Your task to perform on an android device: check data usage Image 0: 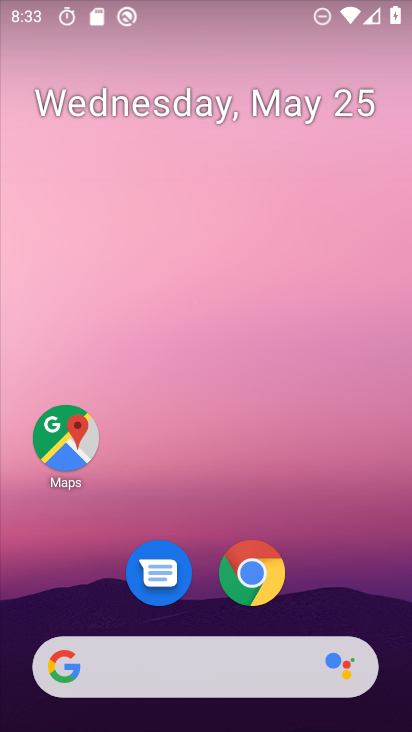
Step 0: drag from (391, 662) to (379, 187)
Your task to perform on an android device: check data usage Image 1: 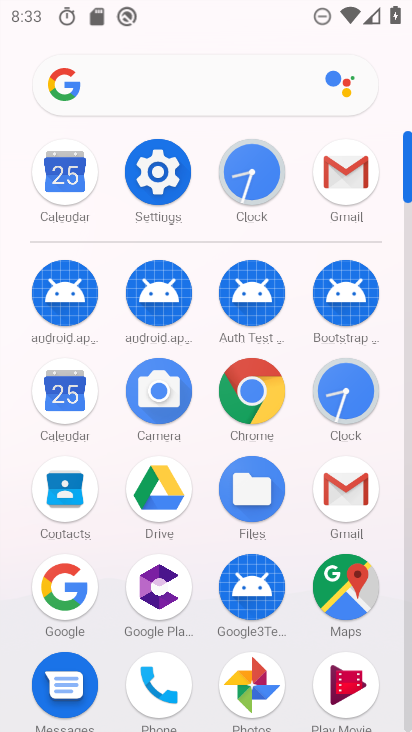
Step 1: click (139, 187)
Your task to perform on an android device: check data usage Image 2: 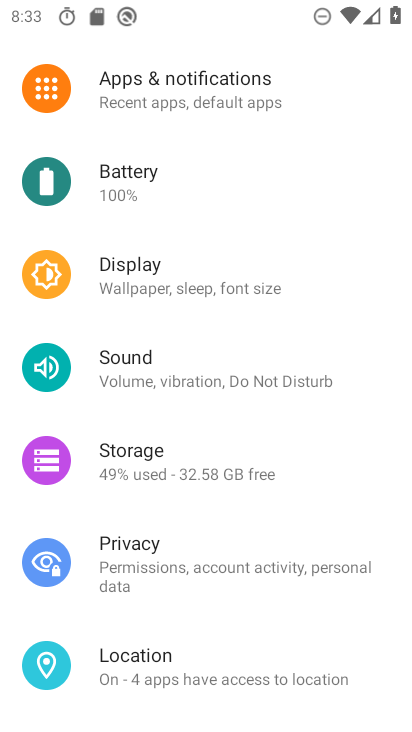
Step 2: drag from (346, 90) to (367, 569)
Your task to perform on an android device: check data usage Image 3: 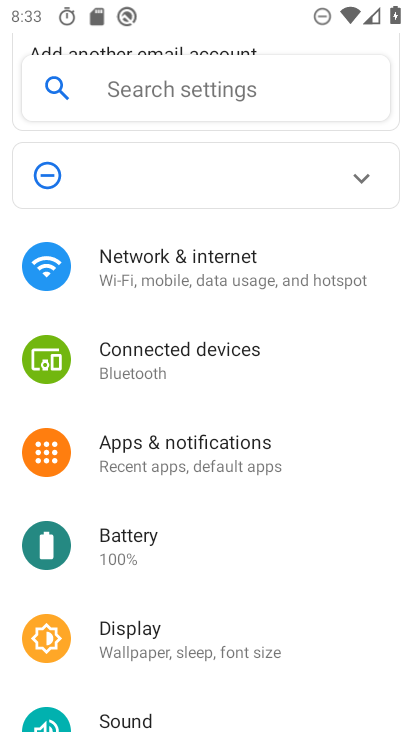
Step 3: click (201, 136)
Your task to perform on an android device: check data usage Image 4: 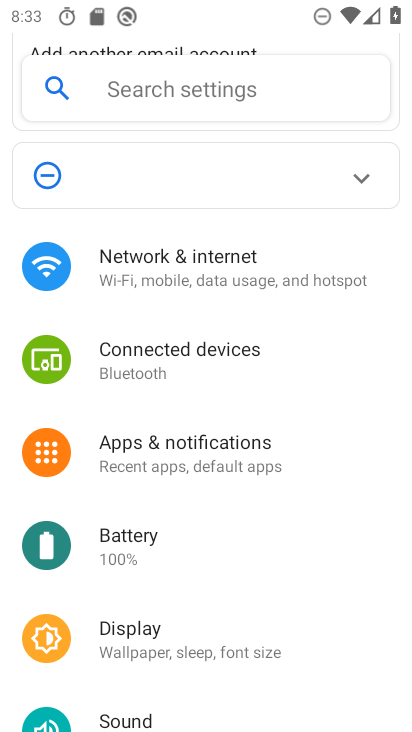
Step 4: click (196, 256)
Your task to perform on an android device: check data usage Image 5: 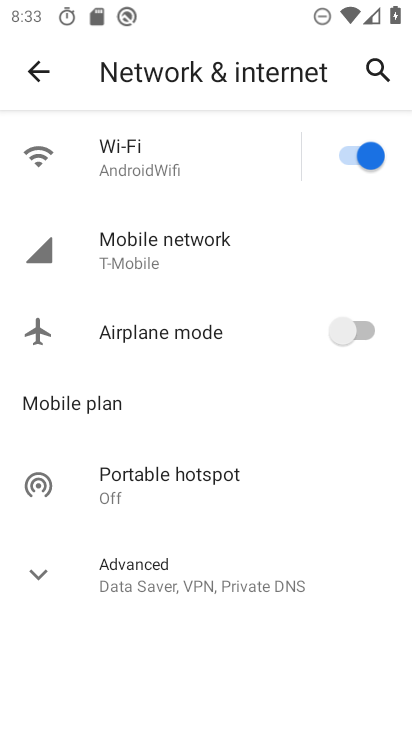
Step 5: click (115, 244)
Your task to perform on an android device: check data usage Image 6: 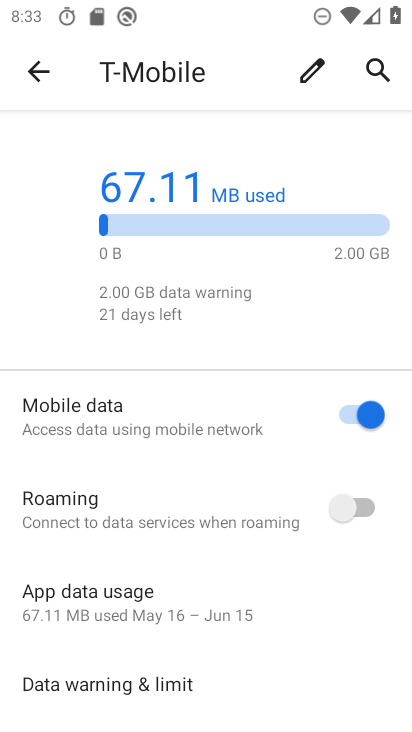
Step 6: task complete